Your task to perform on an android device: turn on the 12-hour format for clock Image 0: 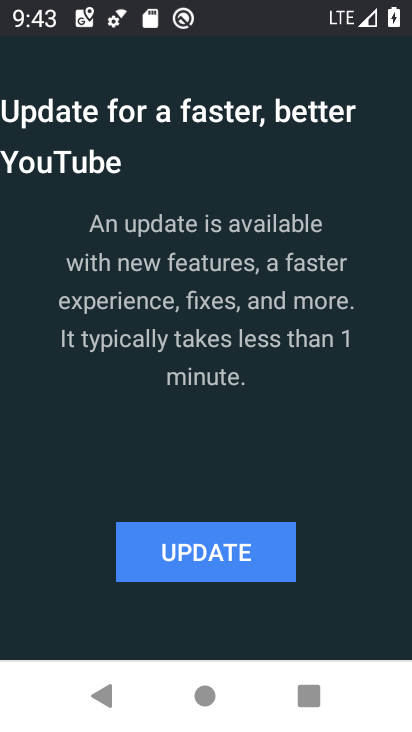
Step 0: press home button
Your task to perform on an android device: turn on the 12-hour format for clock Image 1: 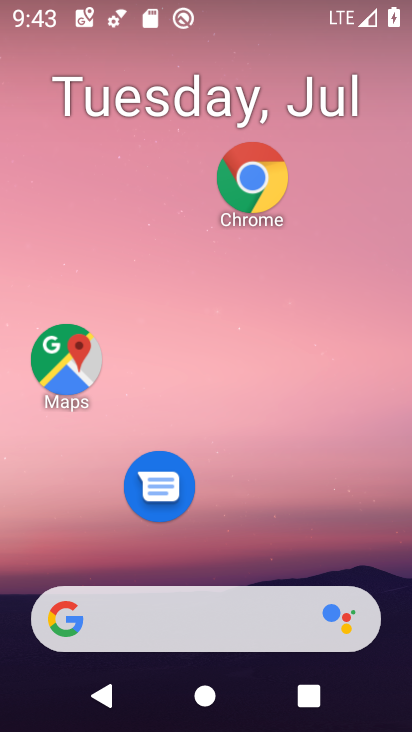
Step 1: drag from (171, 568) to (158, 146)
Your task to perform on an android device: turn on the 12-hour format for clock Image 2: 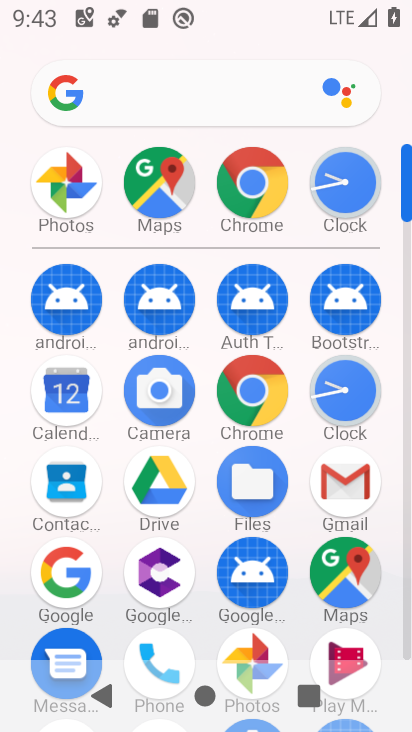
Step 2: click (365, 401)
Your task to perform on an android device: turn on the 12-hour format for clock Image 3: 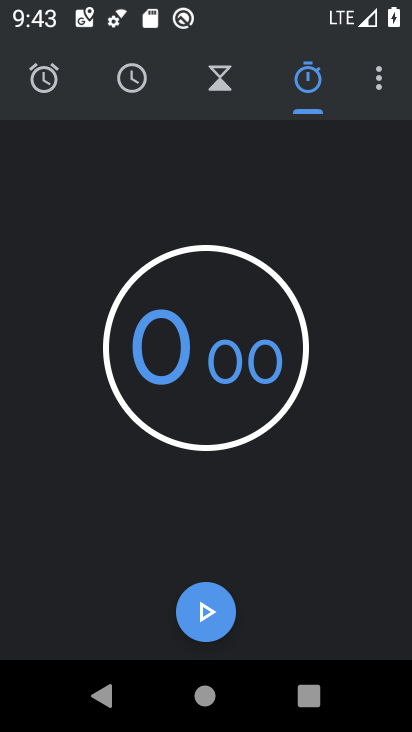
Step 3: click (380, 99)
Your task to perform on an android device: turn on the 12-hour format for clock Image 4: 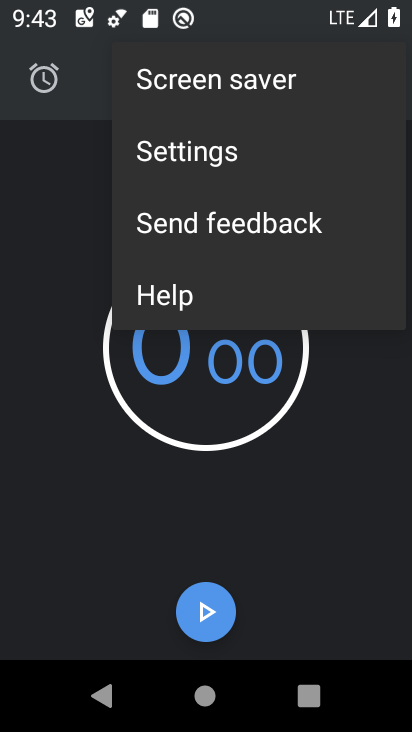
Step 4: click (236, 149)
Your task to perform on an android device: turn on the 12-hour format for clock Image 5: 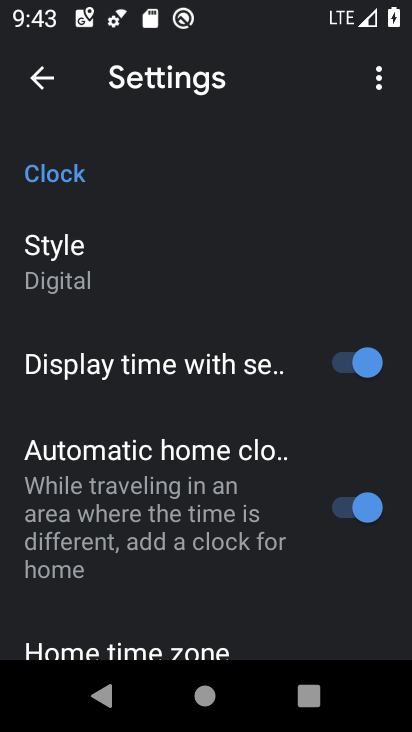
Step 5: drag from (308, 590) to (295, 0)
Your task to perform on an android device: turn on the 12-hour format for clock Image 6: 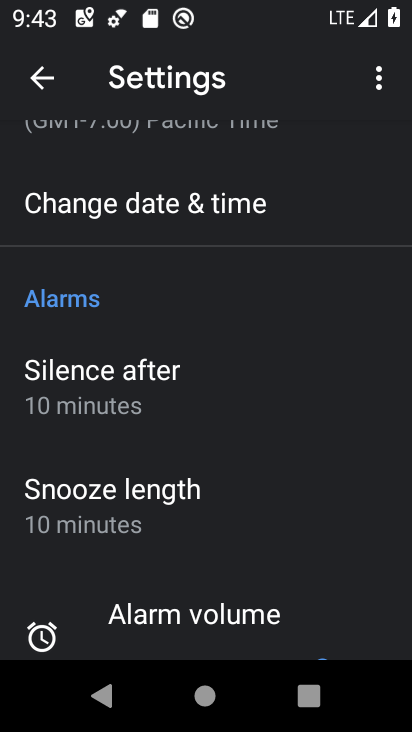
Step 6: click (253, 214)
Your task to perform on an android device: turn on the 12-hour format for clock Image 7: 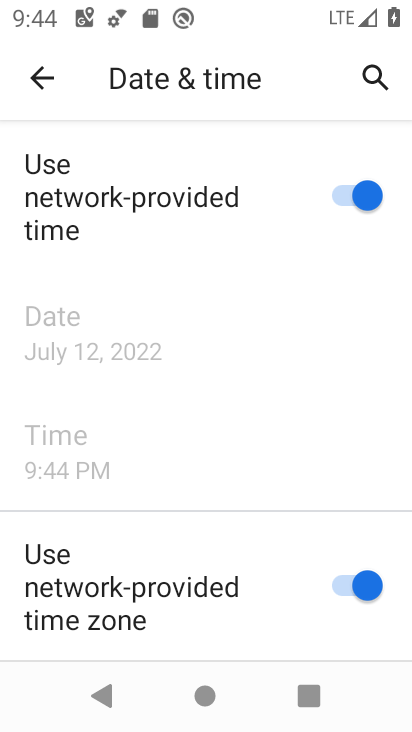
Step 7: task complete